Your task to perform on an android device: Go to accessibility settings Image 0: 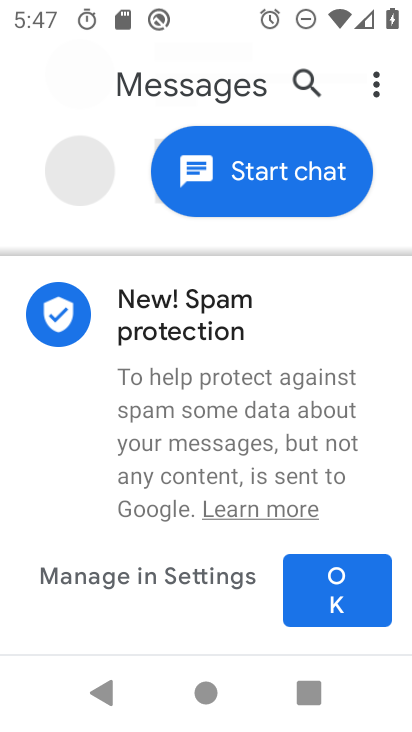
Step 0: press home button
Your task to perform on an android device: Go to accessibility settings Image 1: 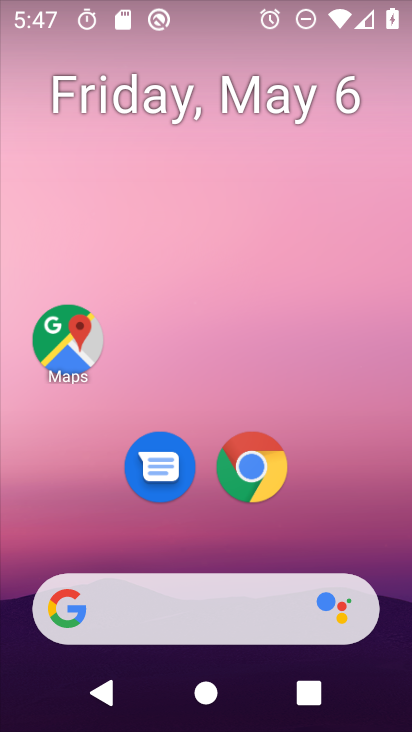
Step 1: drag from (319, 500) to (323, 254)
Your task to perform on an android device: Go to accessibility settings Image 2: 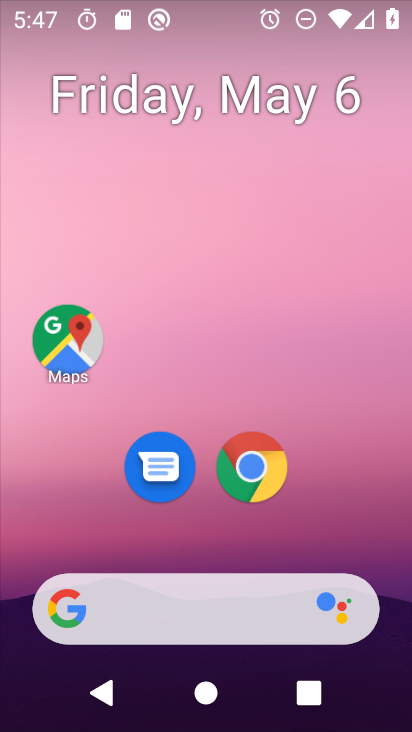
Step 2: drag from (324, 523) to (298, 169)
Your task to perform on an android device: Go to accessibility settings Image 3: 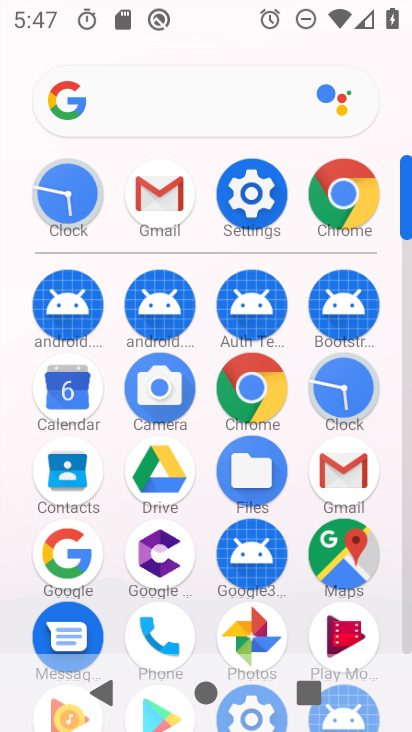
Step 3: click (249, 221)
Your task to perform on an android device: Go to accessibility settings Image 4: 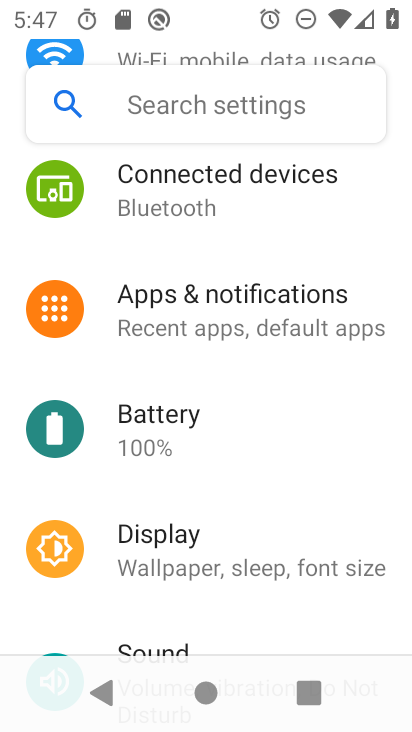
Step 4: drag from (239, 577) to (263, 249)
Your task to perform on an android device: Go to accessibility settings Image 5: 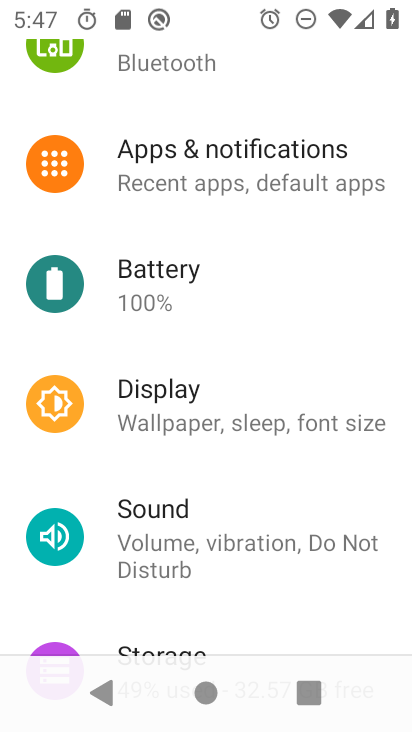
Step 5: drag from (210, 549) to (206, 220)
Your task to perform on an android device: Go to accessibility settings Image 6: 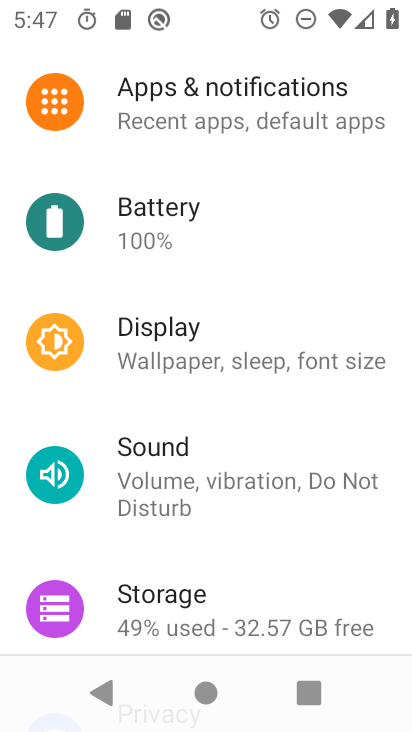
Step 6: drag from (198, 563) to (236, 260)
Your task to perform on an android device: Go to accessibility settings Image 7: 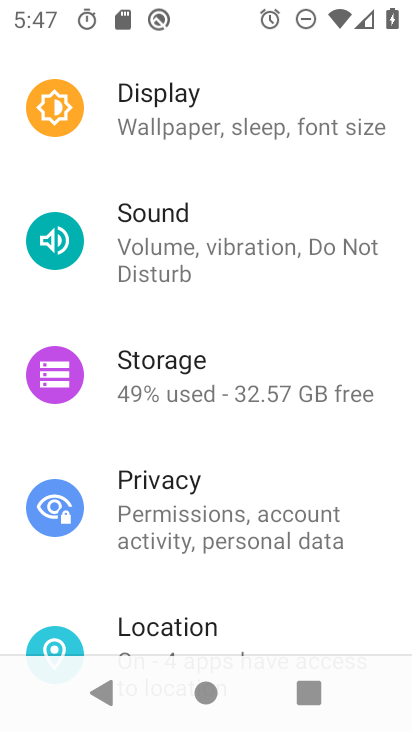
Step 7: drag from (198, 536) to (246, 113)
Your task to perform on an android device: Go to accessibility settings Image 8: 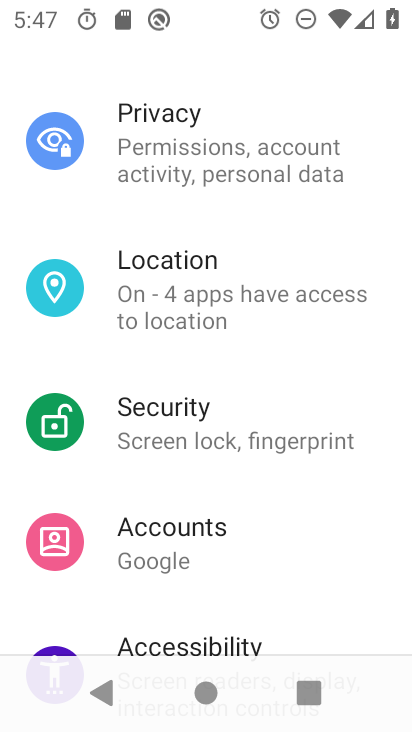
Step 8: drag from (252, 532) to (217, 276)
Your task to perform on an android device: Go to accessibility settings Image 9: 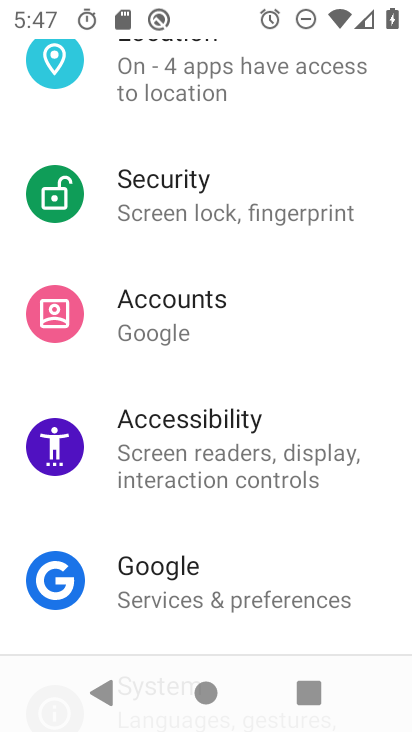
Step 9: click (212, 463)
Your task to perform on an android device: Go to accessibility settings Image 10: 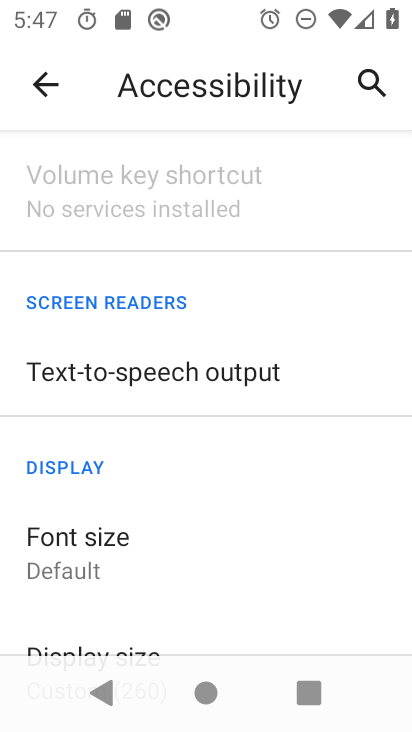
Step 10: task complete